Your task to perform on an android device: Open settings Image 0: 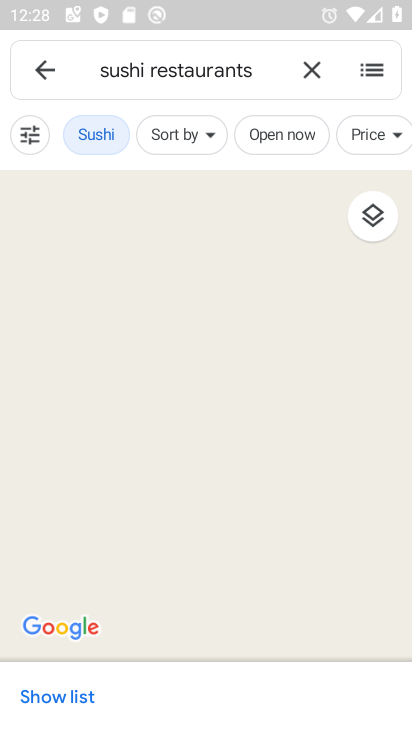
Step 0: press home button
Your task to perform on an android device: Open settings Image 1: 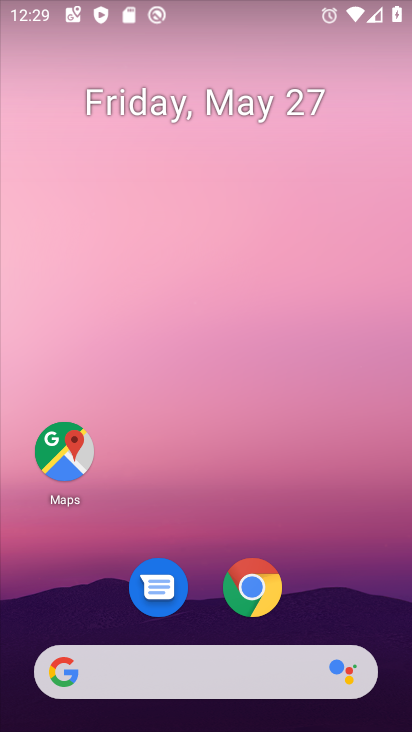
Step 1: drag from (303, 647) to (284, 145)
Your task to perform on an android device: Open settings Image 2: 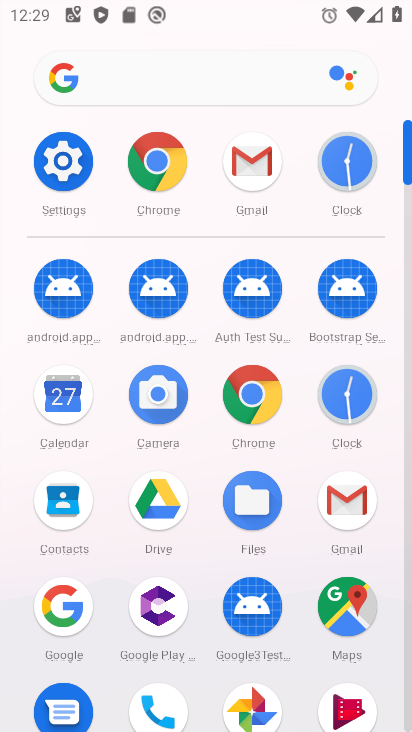
Step 2: click (56, 172)
Your task to perform on an android device: Open settings Image 3: 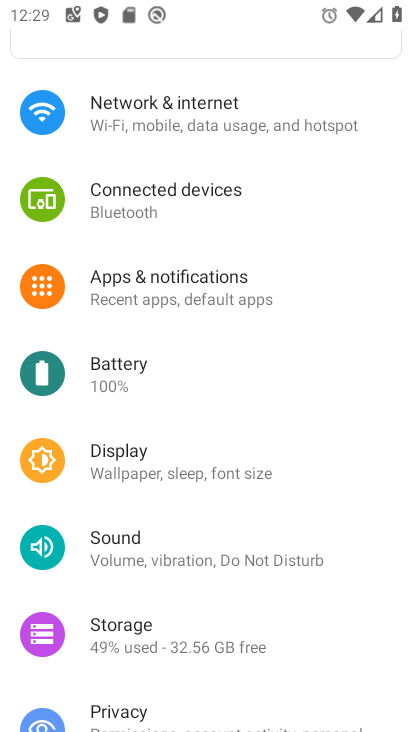
Step 3: task complete